Your task to perform on an android device: Open maps Image 0: 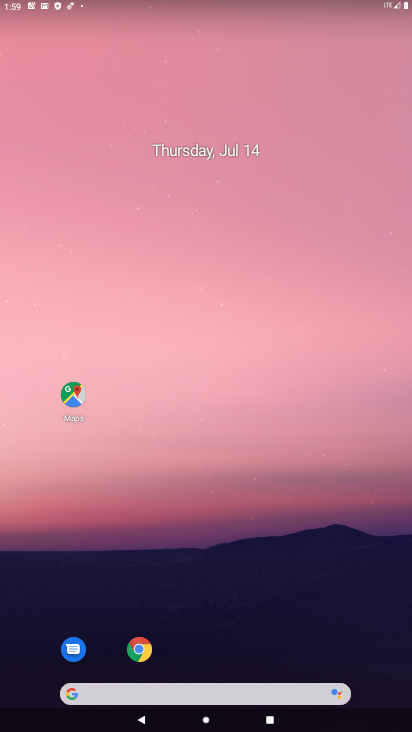
Step 0: drag from (355, 687) to (207, 4)
Your task to perform on an android device: Open maps Image 1: 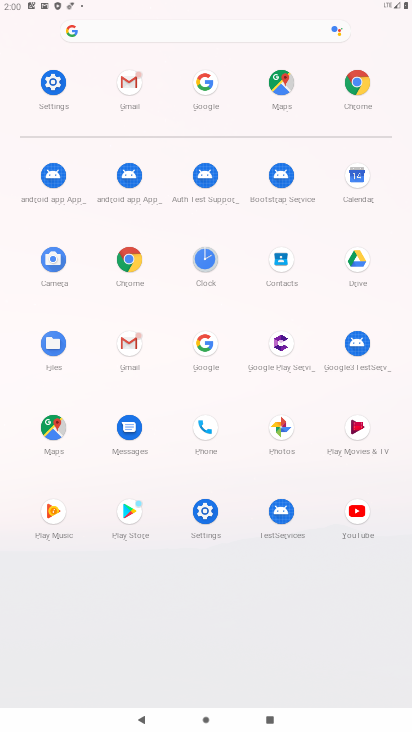
Step 1: click (52, 422)
Your task to perform on an android device: Open maps Image 2: 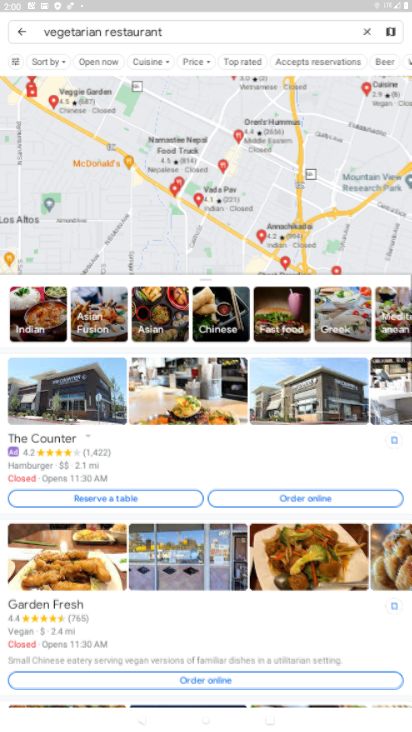
Step 2: click (366, 33)
Your task to perform on an android device: Open maps Image 3: 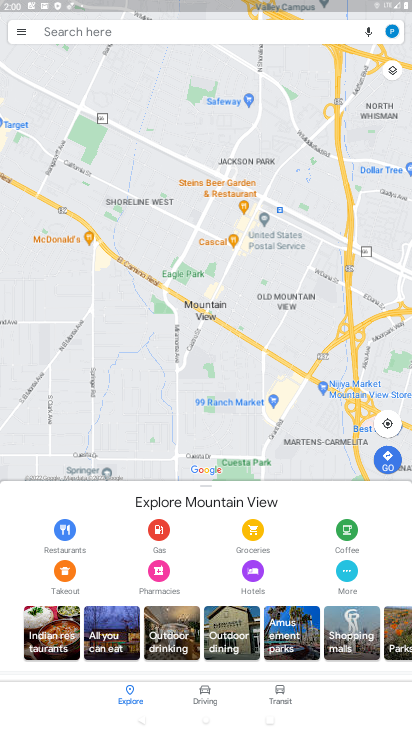
Step 3: task complete